Your task to perform on an android device: open app "Skype" Image 0: 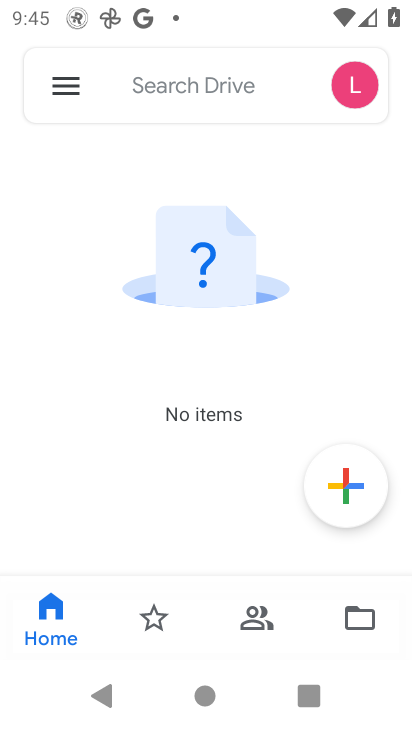
Step 0: press back button
Your task to perform on an android device: open app "Skype" Image 1: 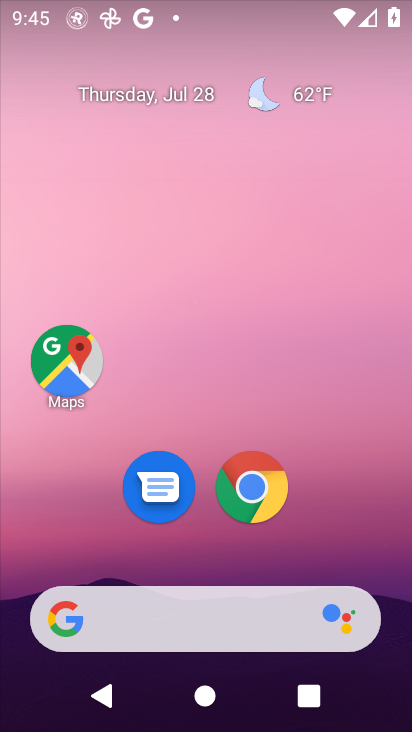
Step 1: click (114, 22)
Your task to perform on an android device: open app "Skype" Image 2: 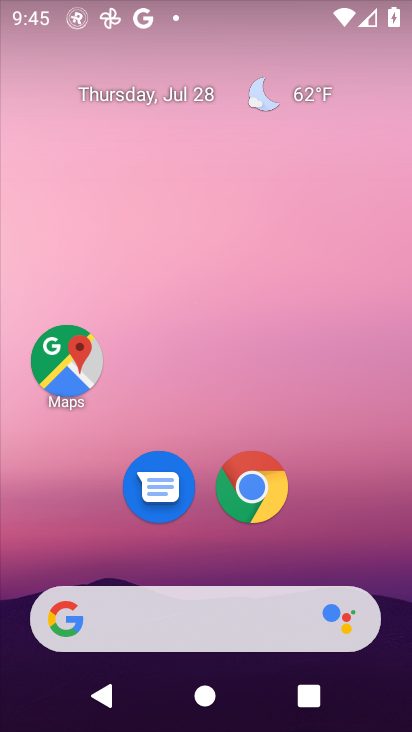
Step 2: drag from (231, 463) to (179, 110)
Your task to perform on an android device: open app "Skype" Image 3: 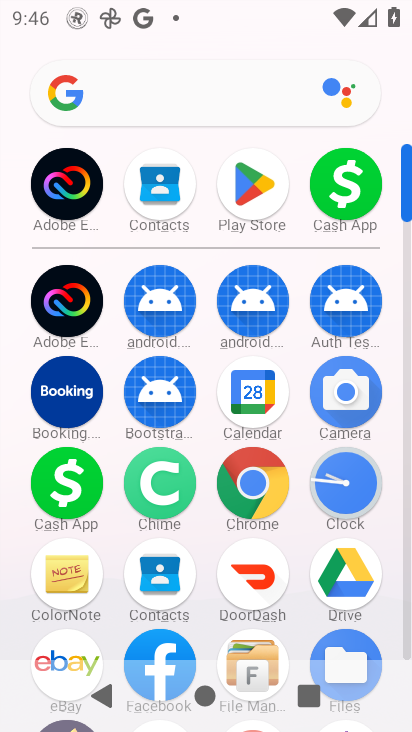
Step 3: click (257, 189)
Your task to perform on an android device: open app "Skype" Image 4: 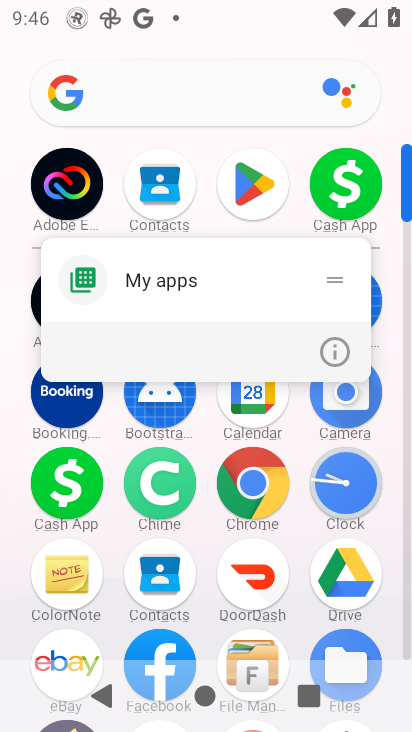
Step 4: click (258, 176)
Your task to perform on an android device: open app "Skype" Image 5: 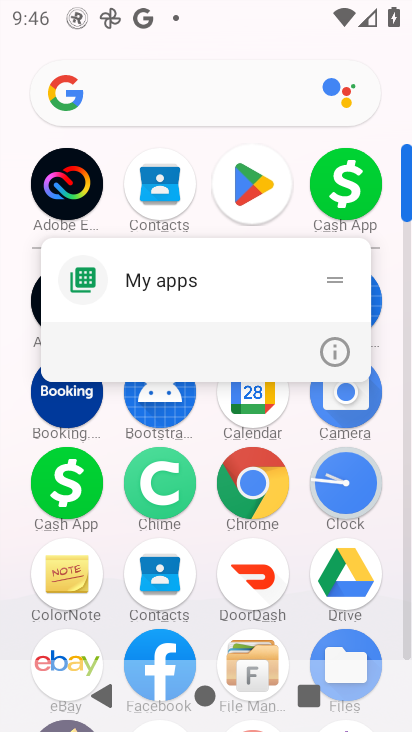
Step 5: click (258, 176)
Your task to perform on an android device: open app "Skype" Image 6: 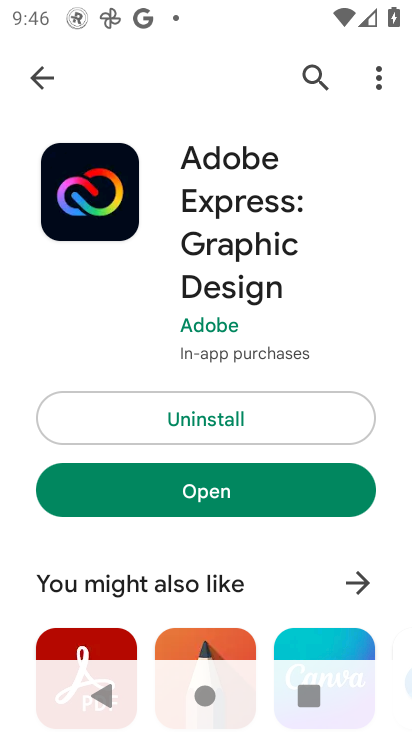
Step 6: click (40, 74)
Your task to perform on an android device: open app "Skype" Image 7: 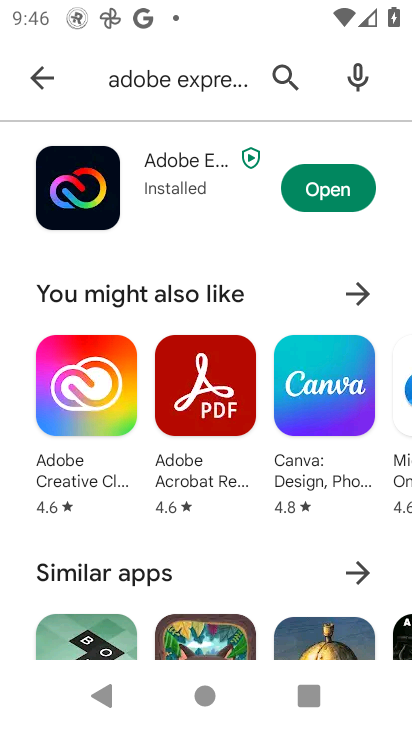
Step 7: click (38, 81)
Your task to perform on an android device: open app "Skype" Image 8: 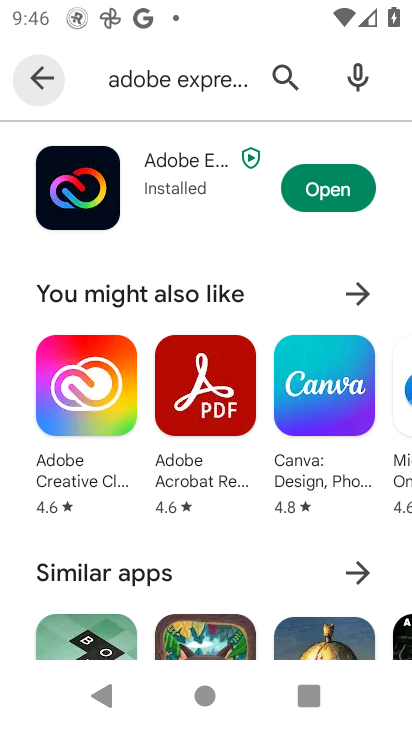
Step 8: click (38, 81)
Your task to perform on an android device: open app "Skype" Image 9: 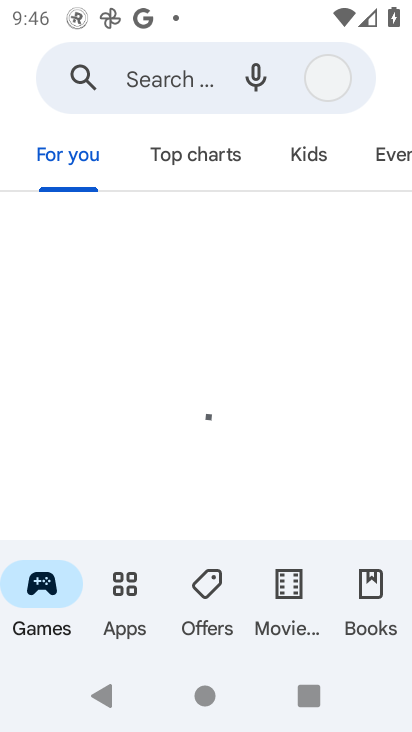
Step 9: click (37, 82)
Your task to perform on an android device: open app "Skype" Image 10: 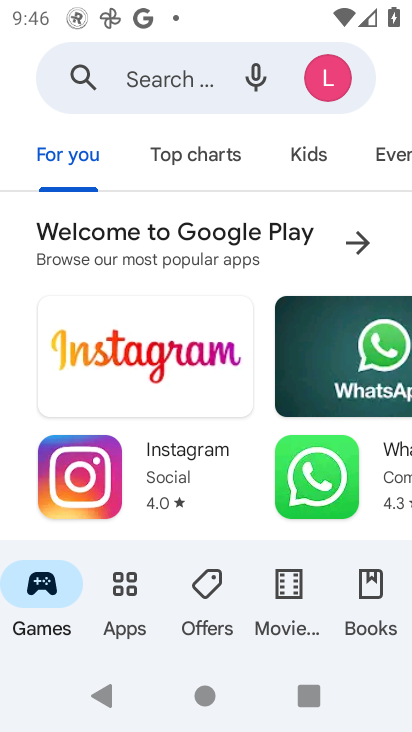
Step 10: click (141, 72)
Your task to perform on an android device: open app "Skype" Image 11: 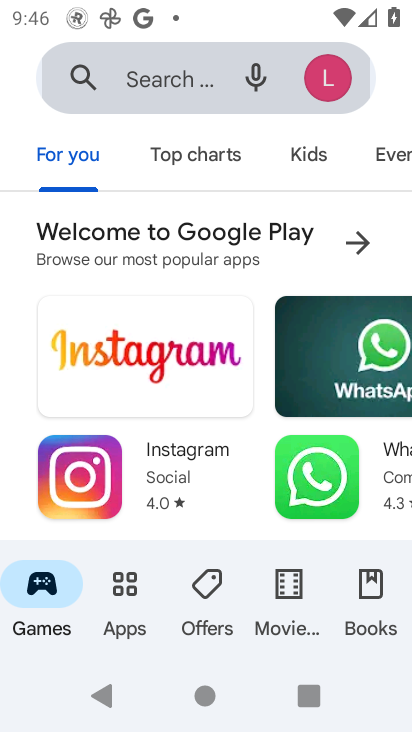
Step 11: click (144, 72)
Your task to perform on an android device: open app "Skype" Image 12: 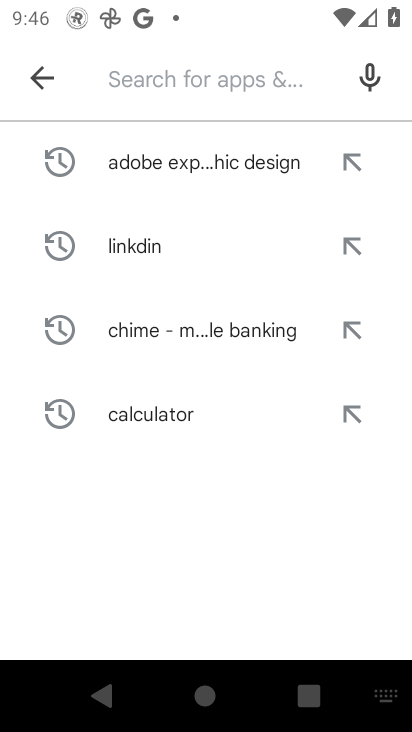
Step 12: click (146, 72)
Your task to perform on an android device: open app "Skype" Image 13: 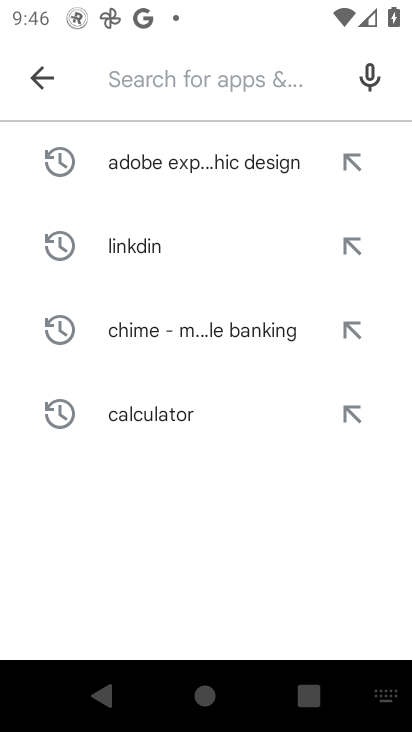
Step 13: type "Skype"
Your task to perform on an android device: open app "Skype" Image 14: 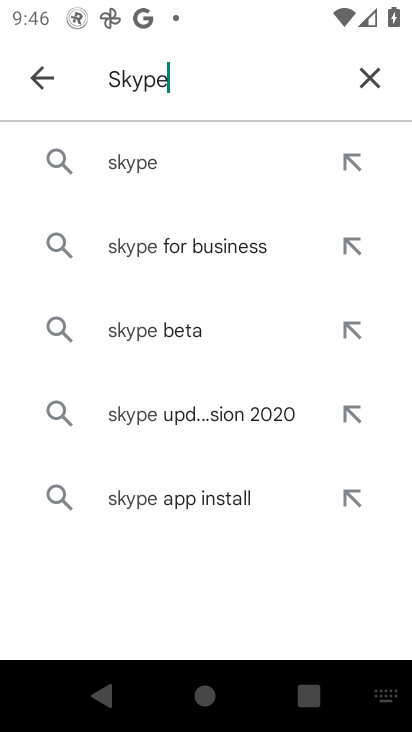
Step 14: click (153, 169)
Your task to perform on an android device: open app "Skype" Image 15: 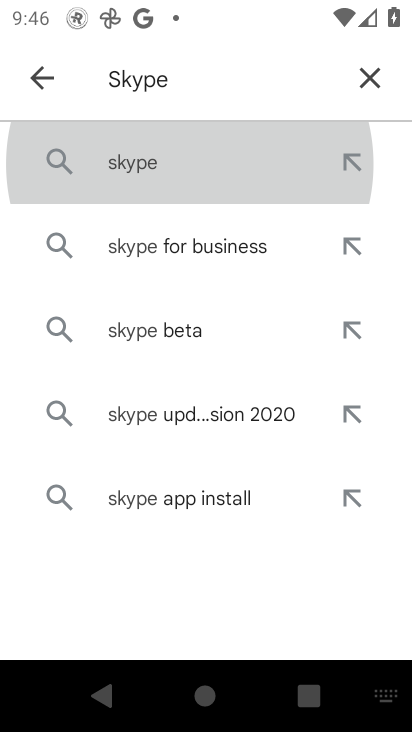
Step 15: click (151, 168)
Your task to perform on an android device: open app "Skype" Image 16: 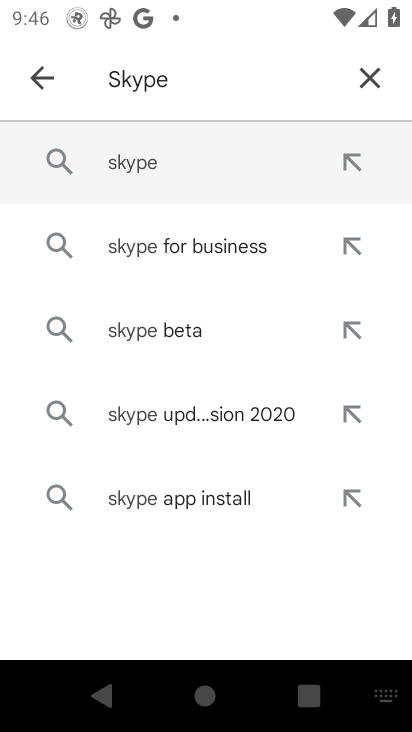
Step 16: click (151, 168)
Your task to perform on an android device: open app "Skype" Image 17: 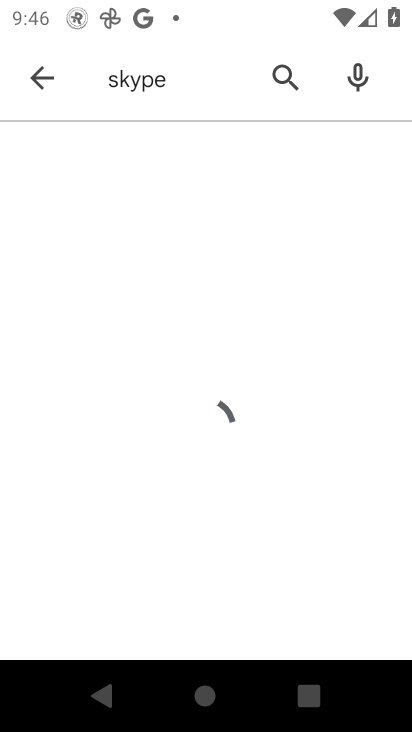
Step 17: click (151, 168)
Your task to perform on an android device: open app "Skype" Image 18: 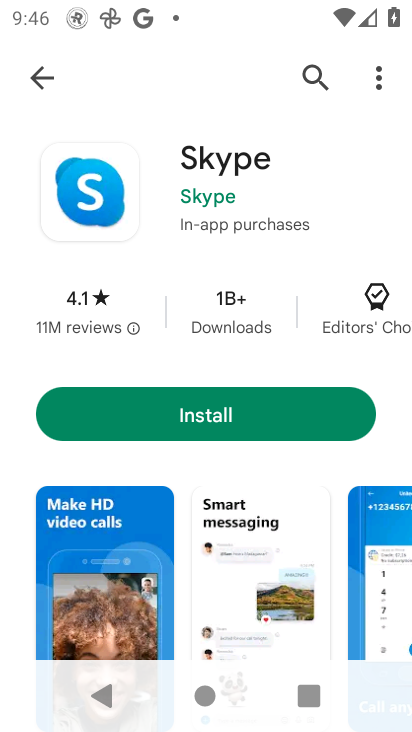
Step 18: click (335, 192)
Your task to perform on an android device: open app "Skype" Image 19: 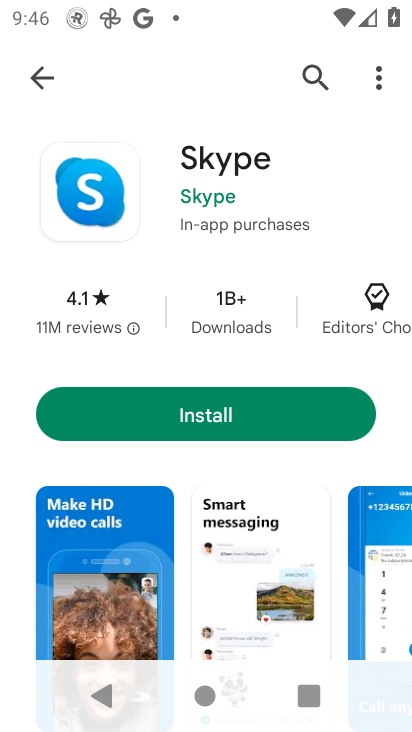
Step 19: click (221, 398)
Your task to perform on an android device: open app "Skype" Image 20: 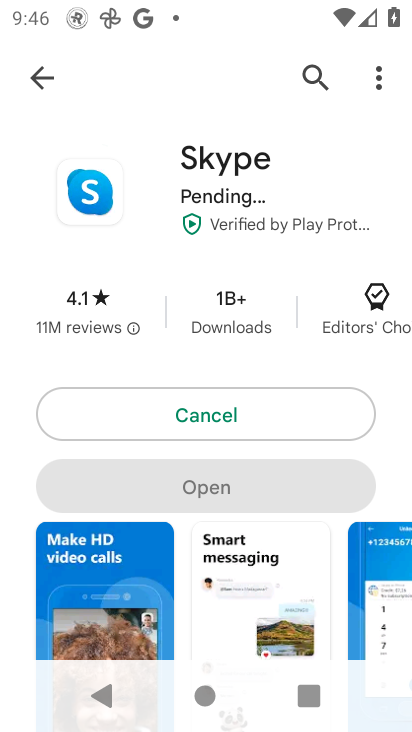
Step 20: click (224, 407)
Your task to perform on an android device: open app "Skype" Image 21: 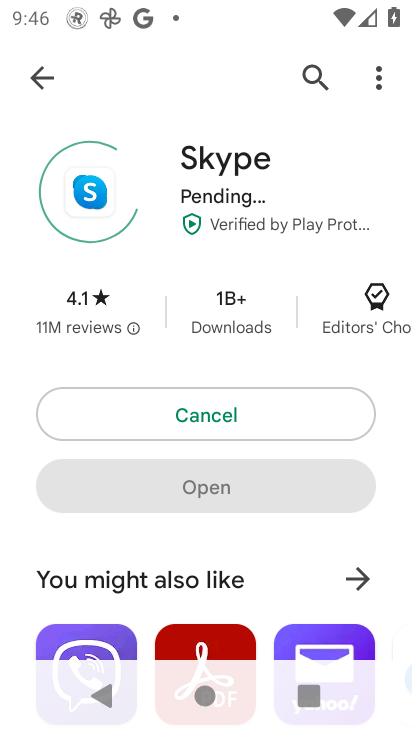
Step 21: click (224, 409)
Your task to perform on an android device: open app "Skype" Image 22: 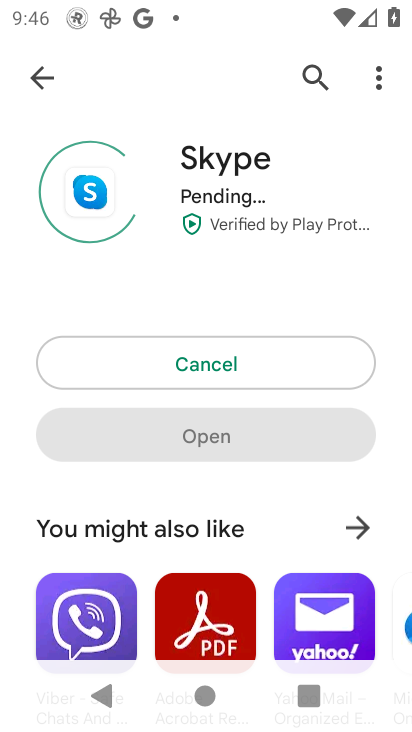
Step 22: click (224, 409)
Your task to perform on an android device: open app "Skype" Image 23: 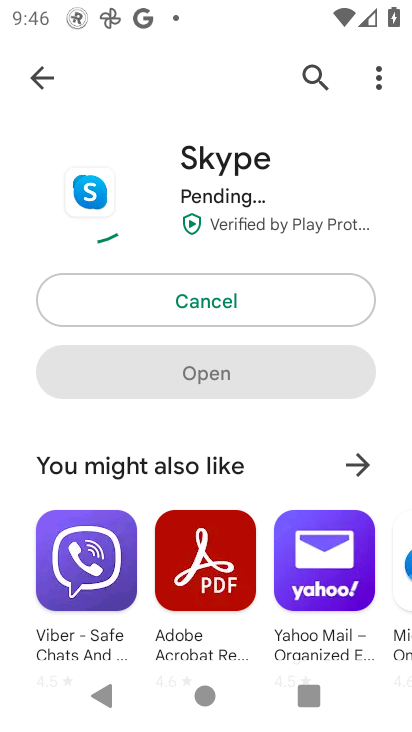
Step 23: click (226, 411)
Your task to perform on an android device: open app "Skype" Image 24: 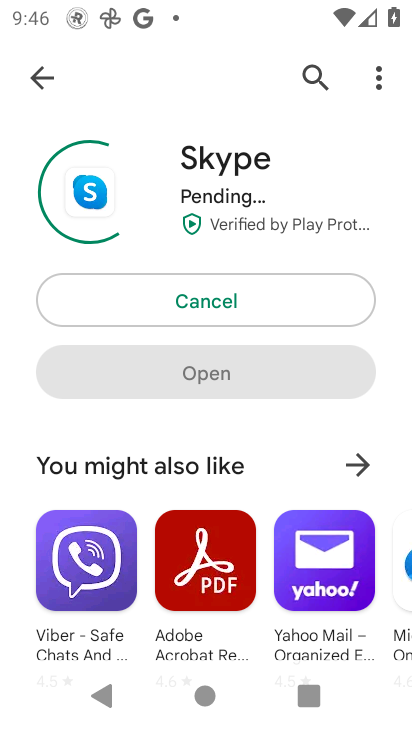
Step 24: click (248, 365)
Your task to perform on an android device: open app "Skype" Image 25: 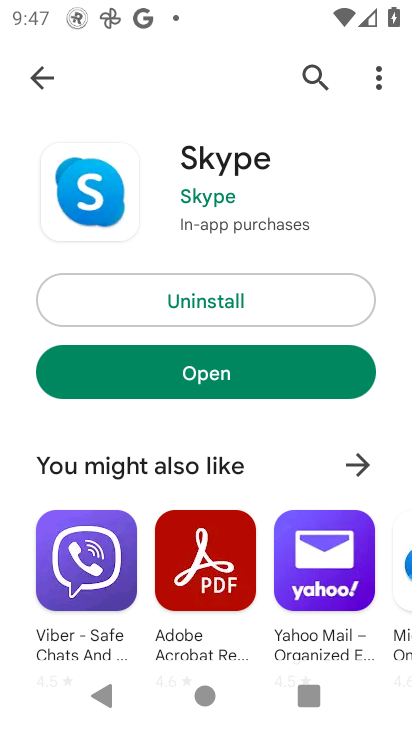
Step 25: drag from (224, 368) to (280, 367)
Your task to perform on an android device: open app "Skype" Image 26: 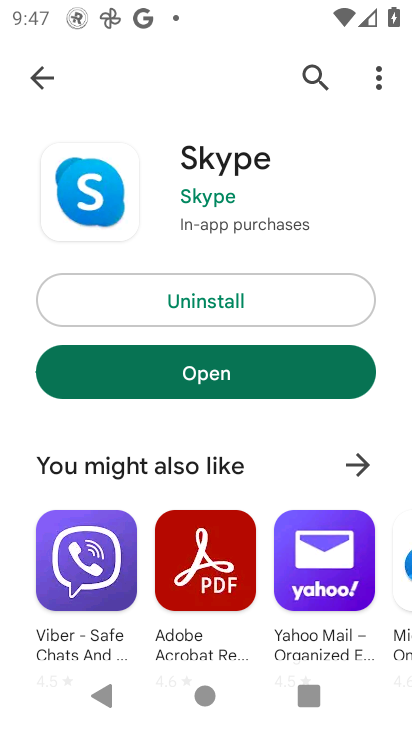
Step 26: click (284, 365)
Your task to perform on an android device: open app "Skype" Image 27: 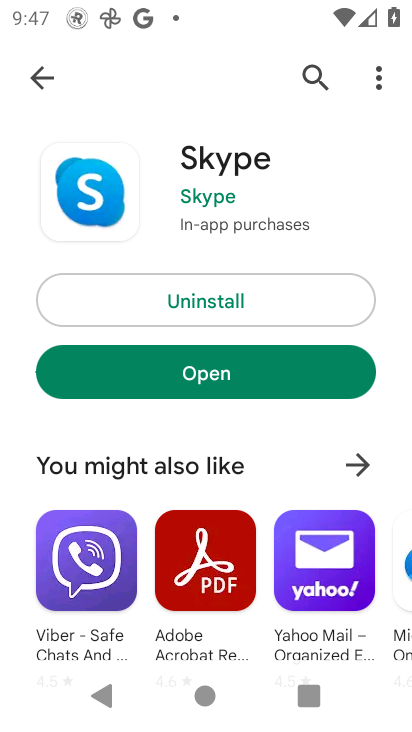
Step 27: click (291, 363)
Your task to perform on an android device: open app "Skype" Image 28: 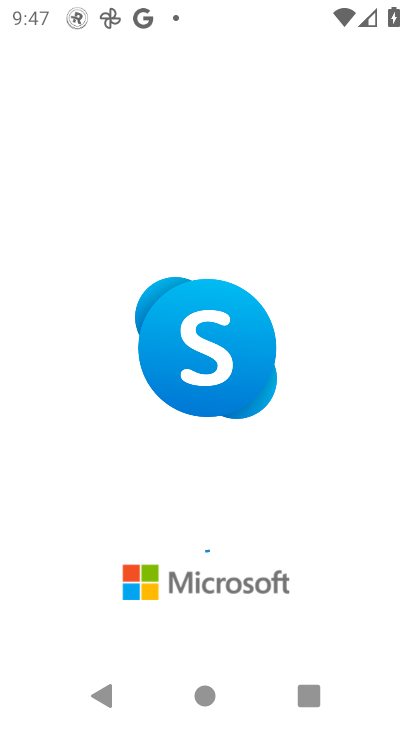
Step 28: task complete